Your task to perform on an android device: turn off data saver in the chrome app Image 0: 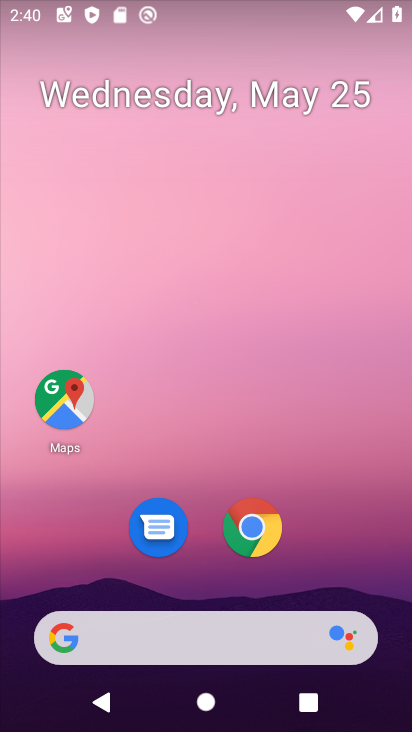
Step 0: click (274, 516)
Your task to perform on an android device: turn off data saver in the chrome app Image 1: 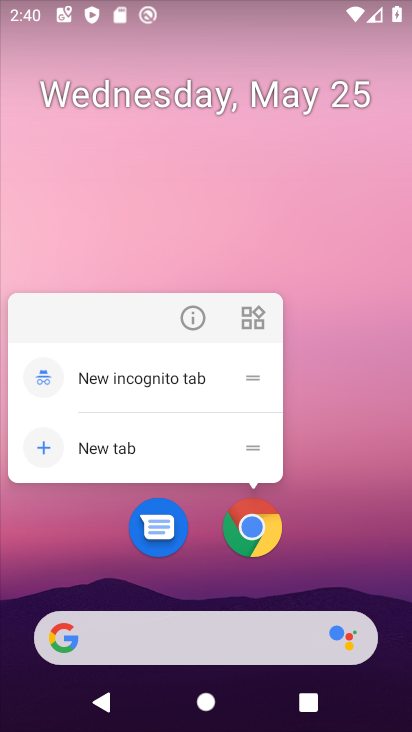
Step 1: click (254, 541)
Your task to perform on an android device: turn off data saver in the chrome app Image 2: 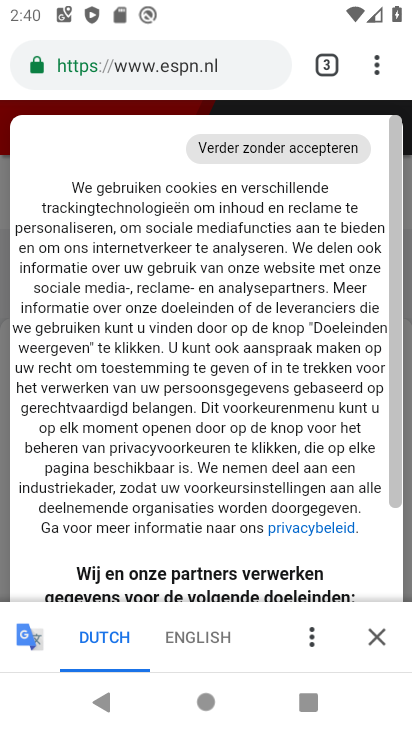
Step 2: drag from (371, 62) to (148, 561)
Your task to perform on an android device: turn off data saver in the chrome app Image 3: 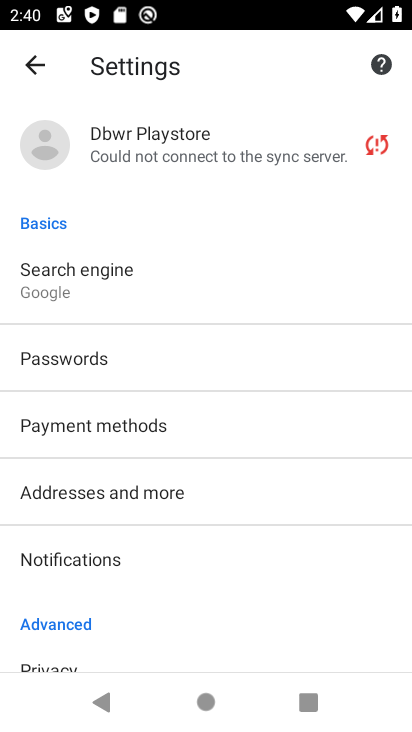
Step 3: drag from (104, 631) to (206, 115)
Your task to perform on an android device: turn off data saver in the chrome app Image 4: 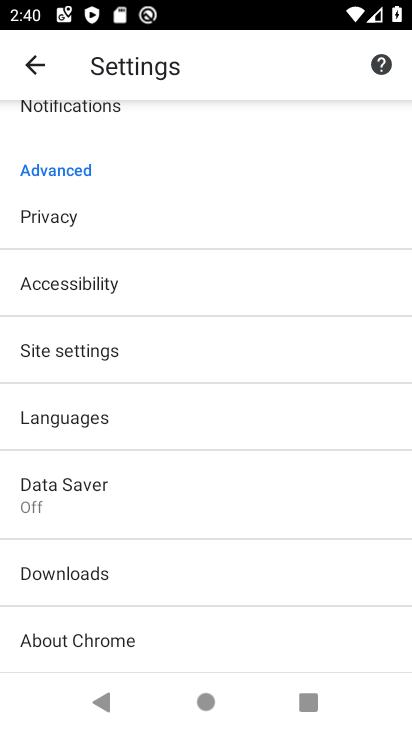
Step 4: click (36, 506)
Your task to perform on an android device: turn off data saver in the chrome app Image 5: 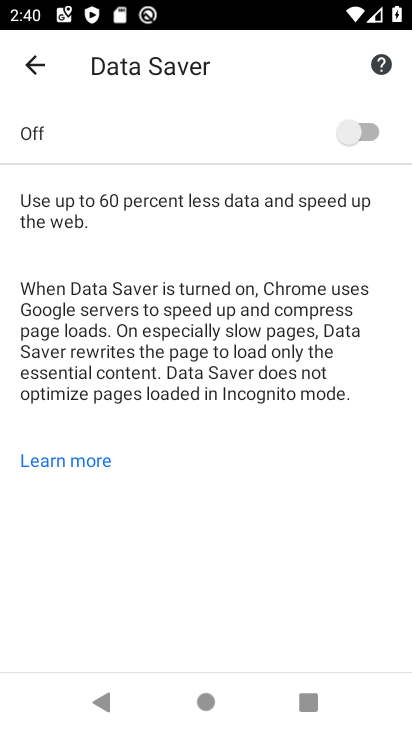
Step 5: task complete